Your task to perform on an android device: turn on bluetooth scan Image 0: 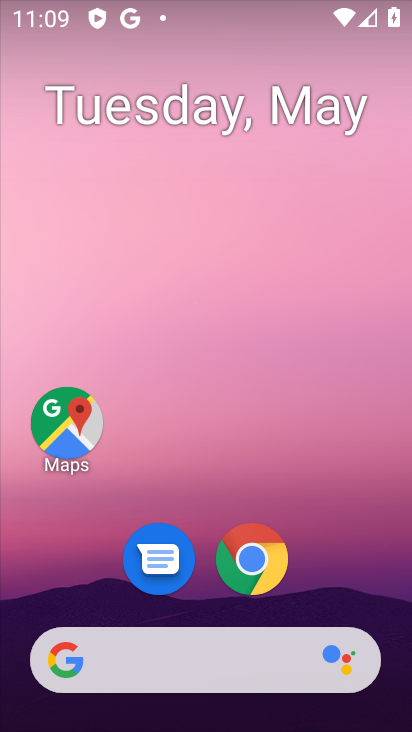
Step 0: drag from (346, 476) to (347, 162)
Your task to perform on an android device: turn on bluetooth scan Image 1: 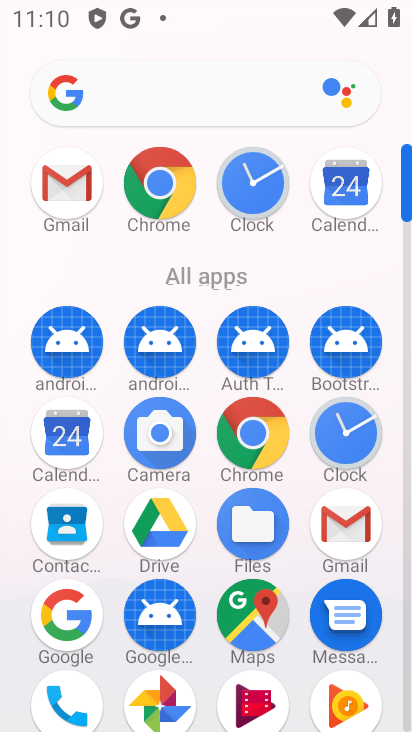
Step 1: drag from (393, 625) to (337, 296)
Your task to perform on an android device: turn on bluetooth scan Image 2: 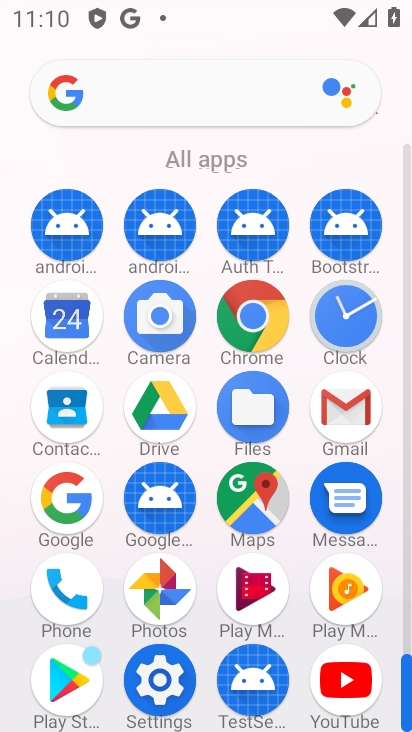
Step 2: click (160, 686)
Your task to perform on an android device: turn on bluetooth scan Image 3: 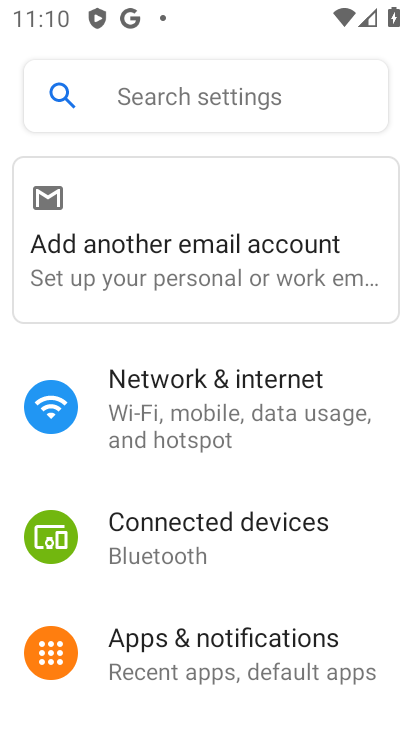
Step 3: drag from (160, 671) to (169, 225)
Your task to perform on an android device: turn on bluetooth scan Image 4: 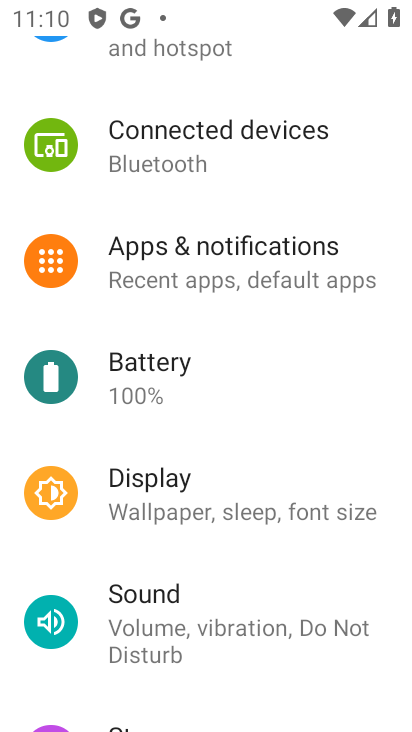
Step 4: drag from (211, 596) to (180, 218)
Your task to perform on an android device: turn on bluetooth scan Image 5: 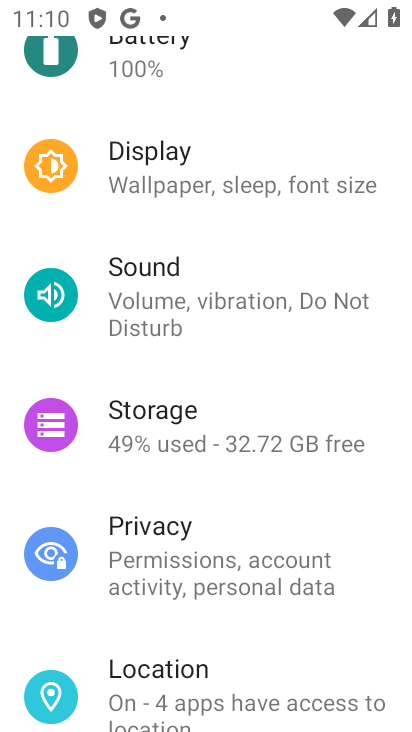
Step 5: click (176, 661)
Your task to perform on an android device: turn on bluetooth scan Image 6: 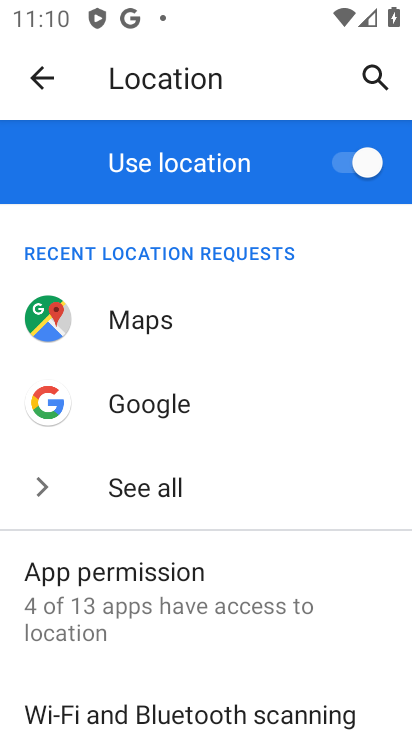
Step 6: drag from (176, 662) to (170, 187)
Your task to perform on an android device: turn on bluetooth scan Image 7: 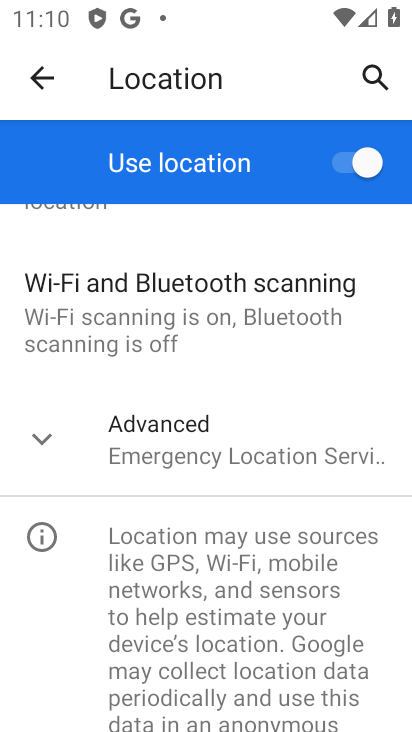
Step 7: drag from (204, 596) to (201, 207)
Your task to perform on an android device: turn on bluetooth scan Image 8: 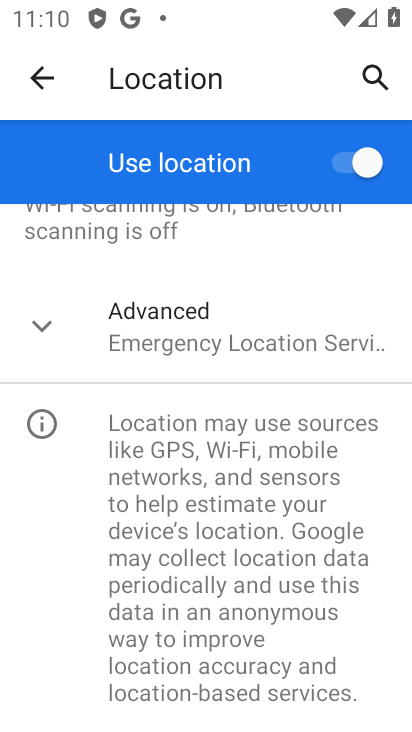
Step 8: drag from (227, 362) to (297, 660)
Your task to perform on an android device: turn on bluetooth scan Image 9: 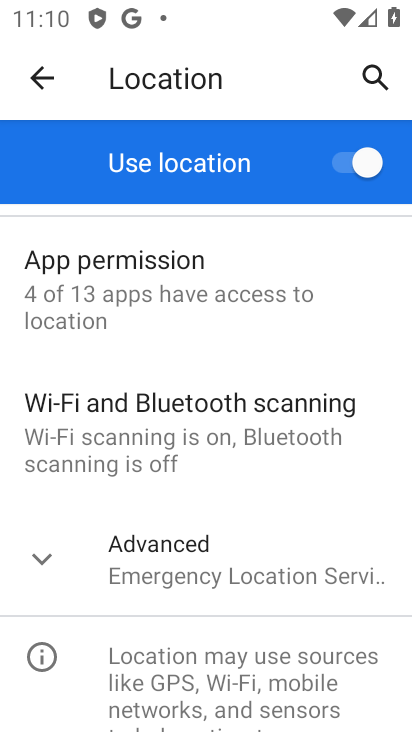
Step 9: click (200, 444)
Your task to perform on an android device: turn on bluetooth scan Image 10: 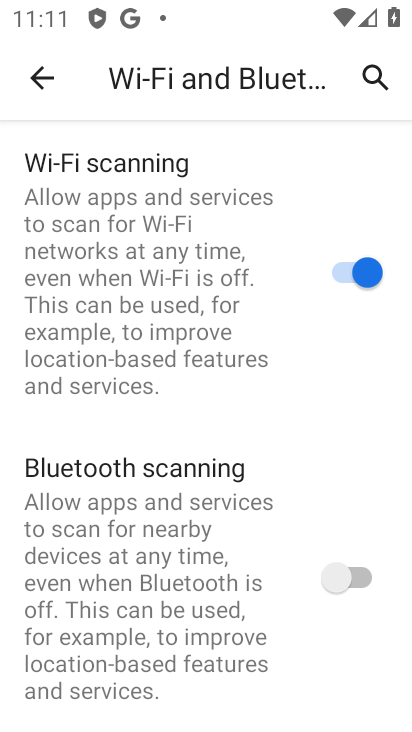
Step 10: click (360, 575)
Your task to perform on an android device: turn on bluetooth scan Image 11: 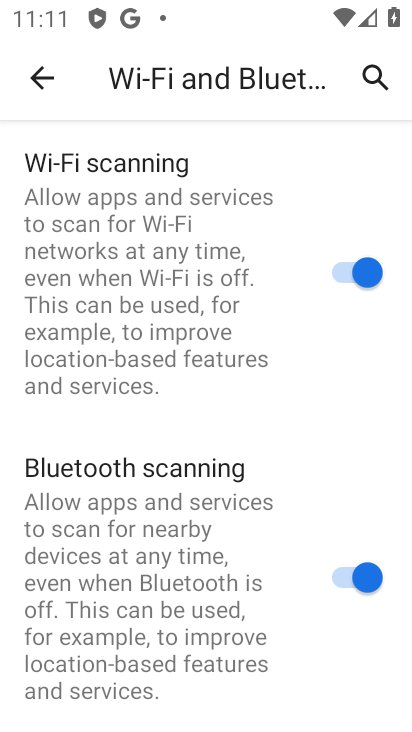
Step 11: task complete